Your task to perform on an android device: change the clock style Image 0: 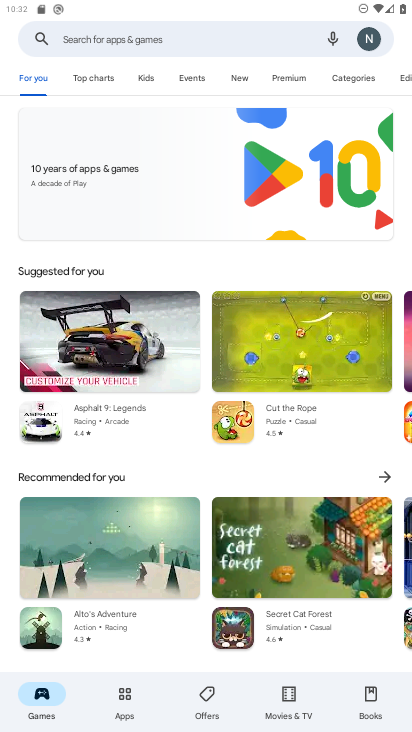
Step 0: press home button
Your task to perform on an android device: change the clock style Image 1: 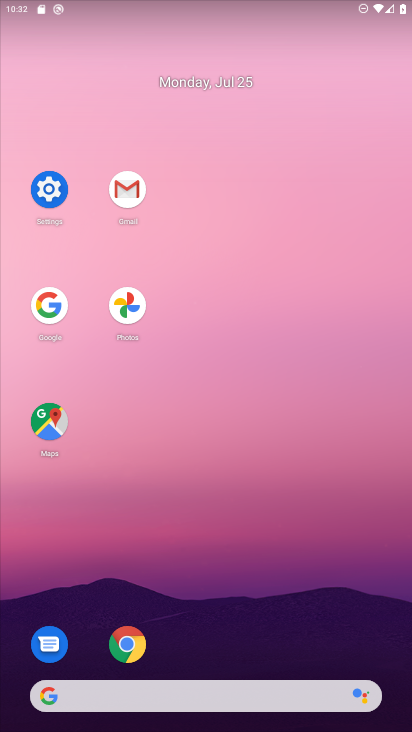
Step 1: drag from (223, 649) to (282, 350)
Your task to perform on an android device: change the clock style Image 2: 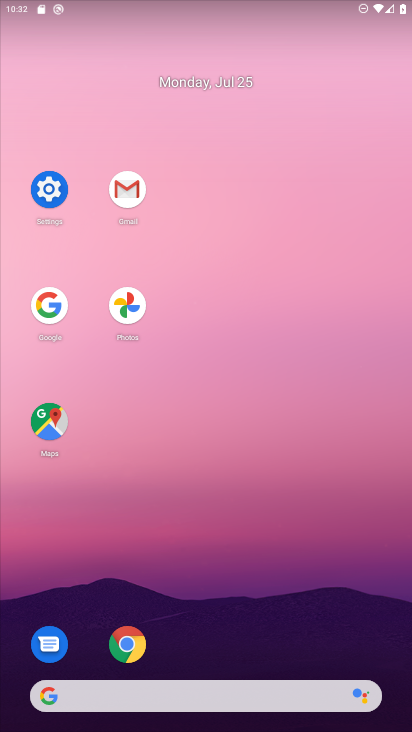
Step 2: drag from (236, 623) to (265, 235)
Your task to perform on an android device: change the clock style Image 3: 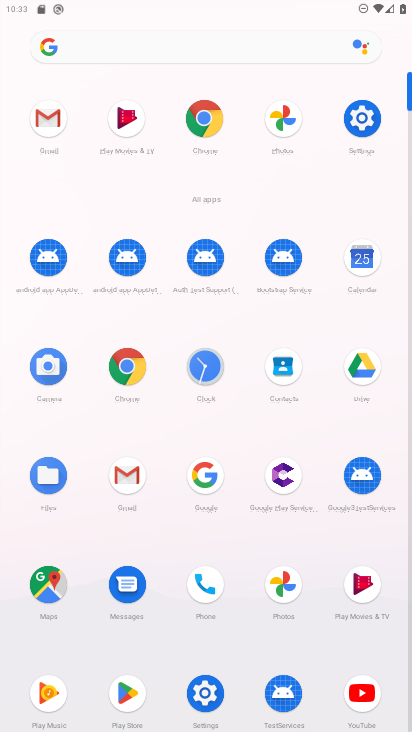
Step 3: drag from (213, 366) to (216, 267)
Your task to perform on an android device: change the clock style Image 4: 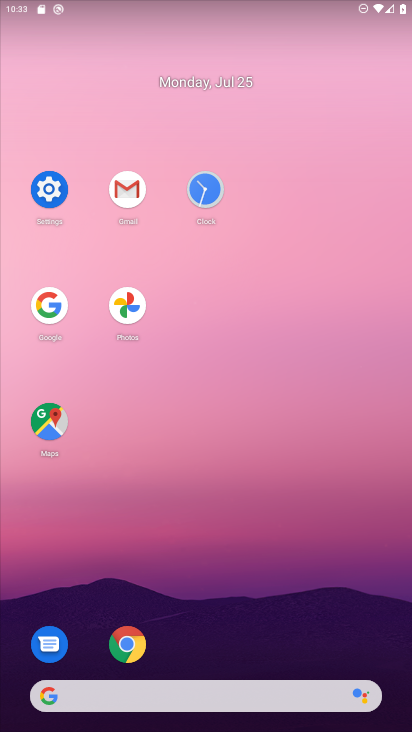
Step 4: click (206, 189)
Your task to perform on an android device: change the clock style Image 5: 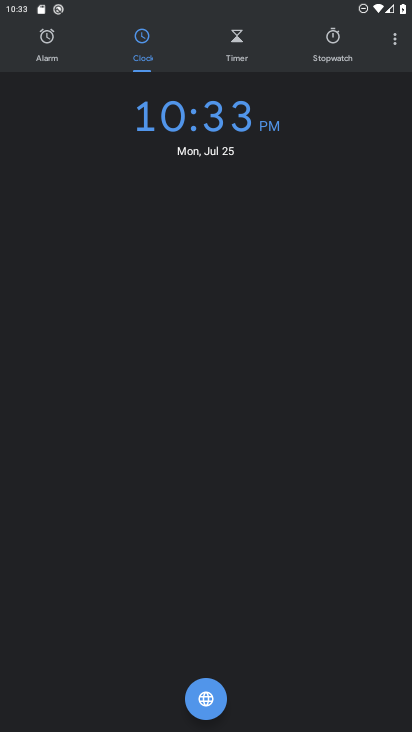
Step 5: click (395, 43)
Your task to perform on an android device: change the clock style Image 6: 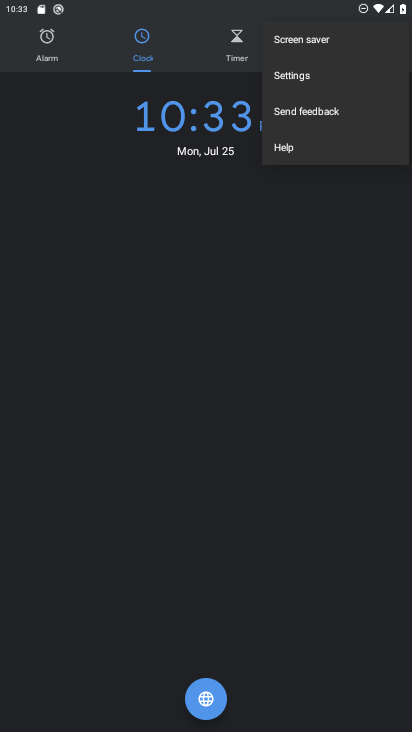
Step 6: click (320, 77)
Your task to perform on an android device: change the clock style Image 7: 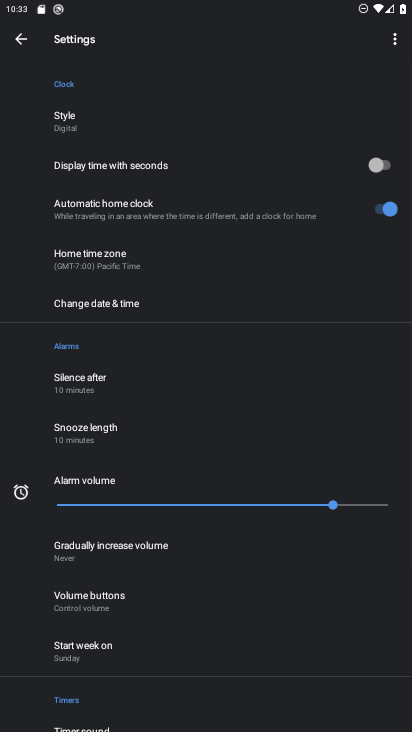
Step 7: click (105, 127)
Your task to perform on an android device: change the clock style Image 8: 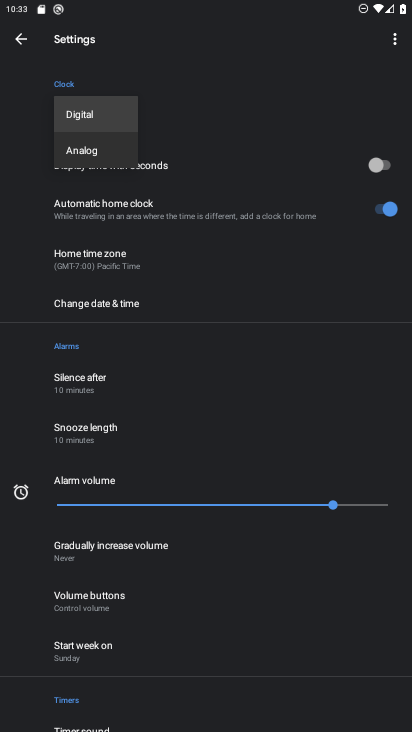
Step 8: click (90, 149)
Your task to perform on an android device: change the clock style Image 9: 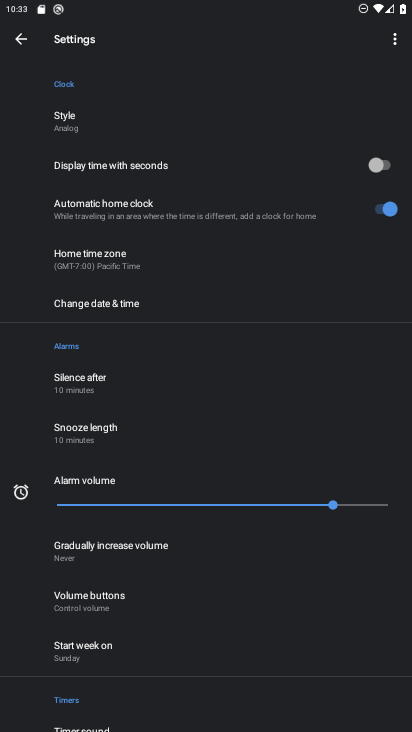
Step 9: task complete